Your task to perform on an android device: Go to internet settings Image 0: 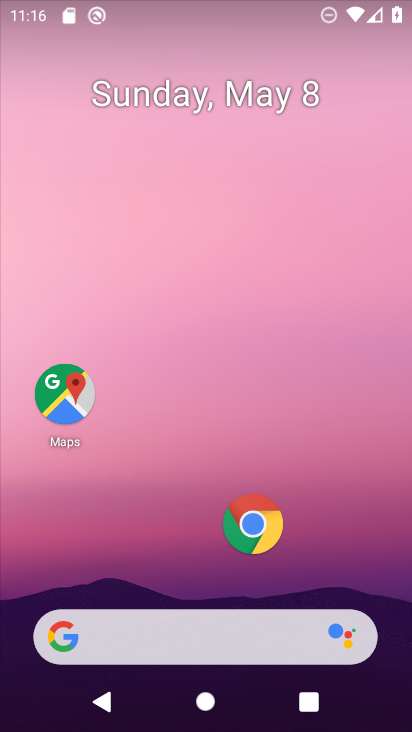
Step 0: drag from (199, 536) to (209, 88)
Your task to perform on an android device: Go to internet settings Image 1: 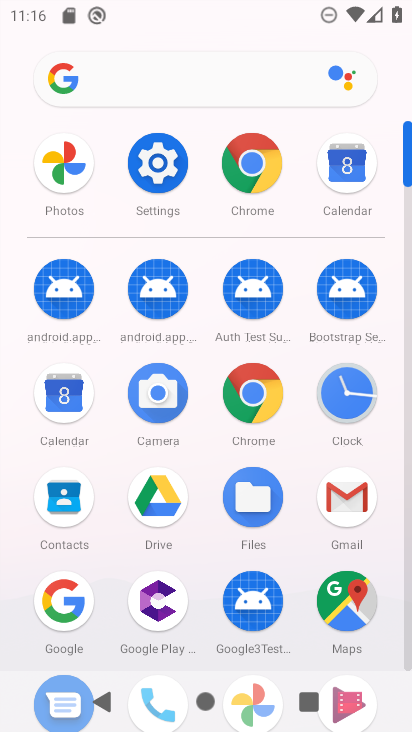
Step 1: click (160, 157)
Your task to perform on an android device: Go to internet settings Image 2: 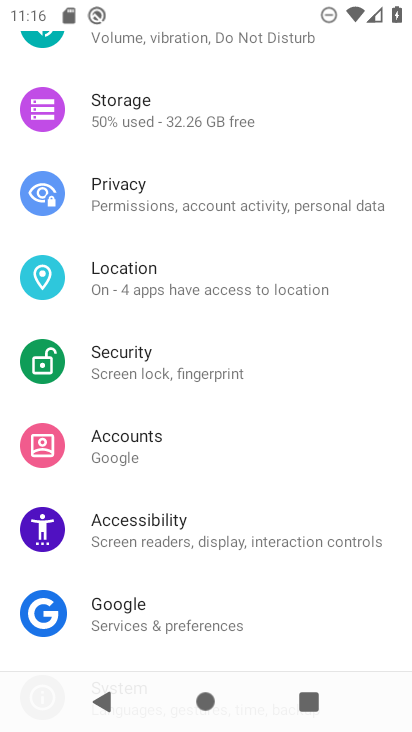
Step 2: drag from (235, 136) to (265, 554)
Your task to perform on an android device: Go to internet settings Image 3: 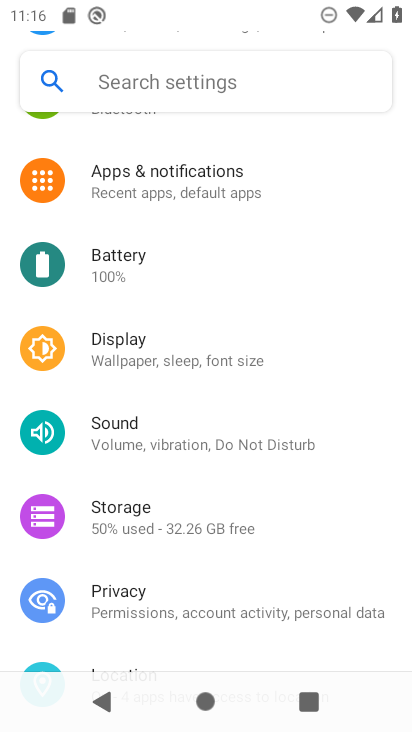
Step 3: drag from (239, 196) to (228, 609)
Your task to perform on an android device: Go to internet settings Image 4: 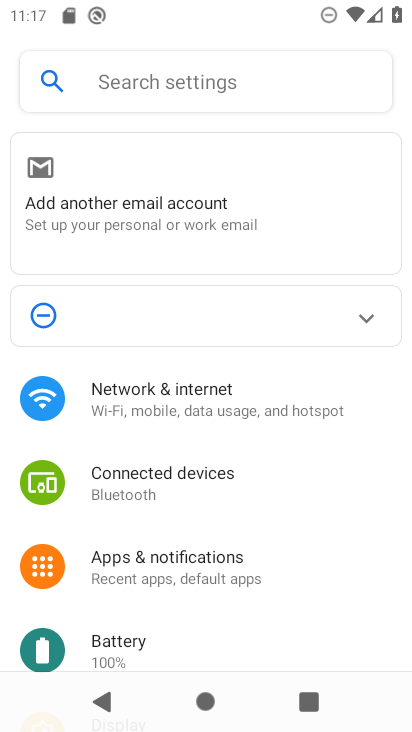
Step 4: click (251, 405)
Your task to perform on an android device: Go to internet settings Image 5: 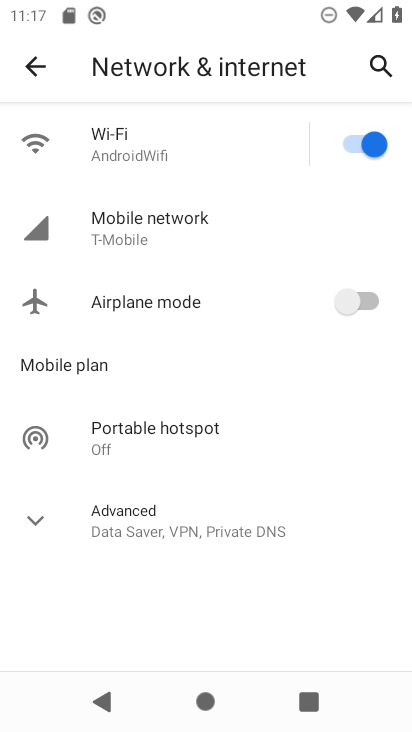
Step 5: task complete